Your task to perform on an android device: set default search engine in the chrome app Image 0: 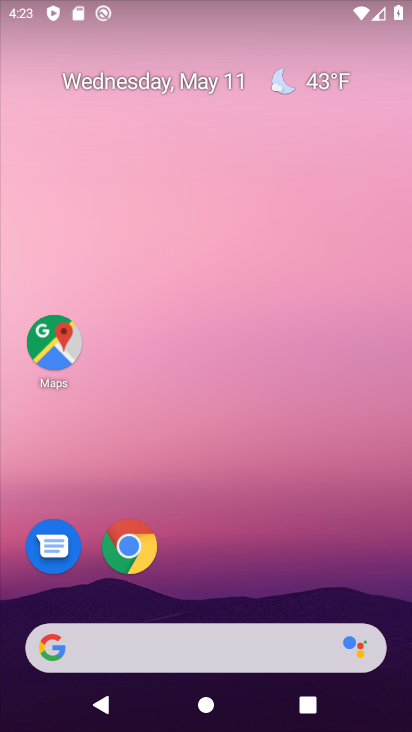
Step 0: click (137, 545)
Your task to perform on an android device: set default search engine in the chrome app Image 1: 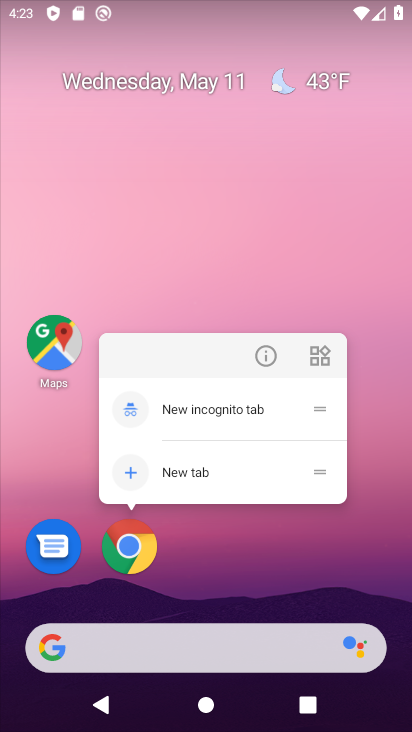
Step 1: click (123, 548)
Your task to perform on an android device: set default search engine in the chrome app Image 2: 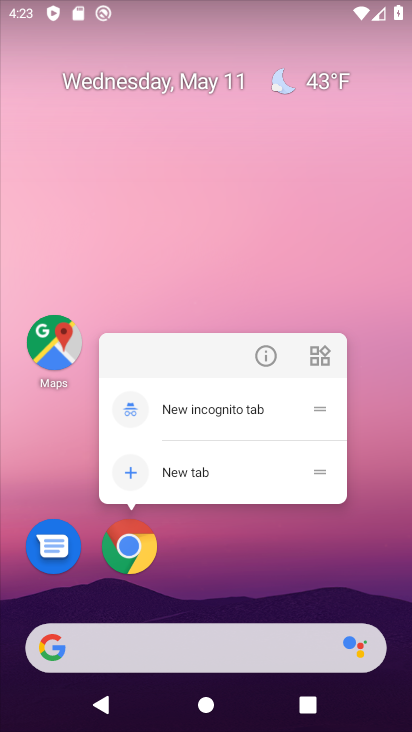
Step 2: click (123, 548)
Your task to perform on an android device: set default search engine in the chrome app Image 3: 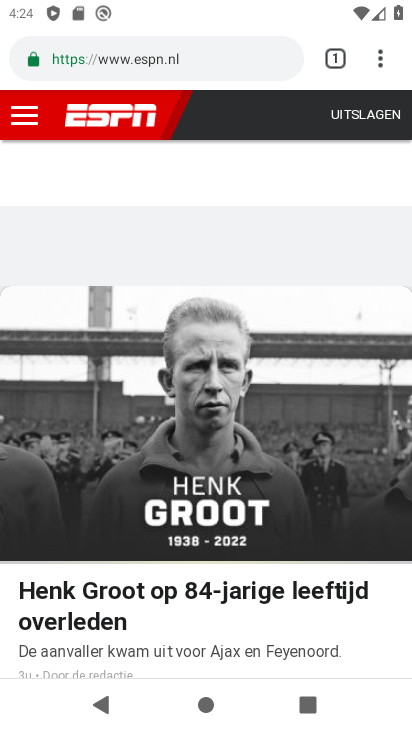
Step 3: click (370, 63)
Your task to perform on an android device: set default search engine in the chrome app Image 4: 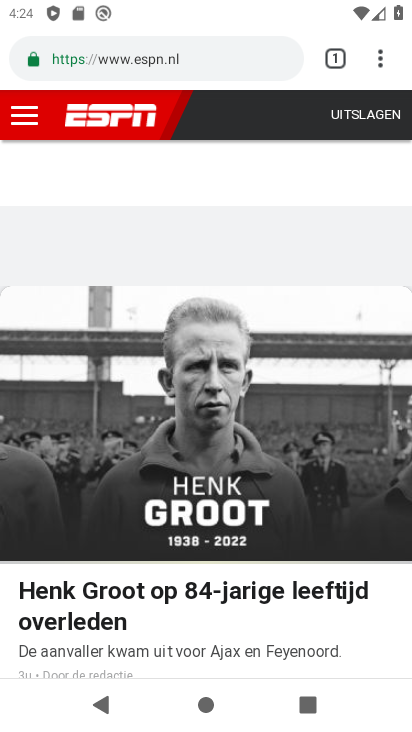
Step 4: click (381, 53)
Your task to perform on an android device: set default search engine in the chrome app Image 5: 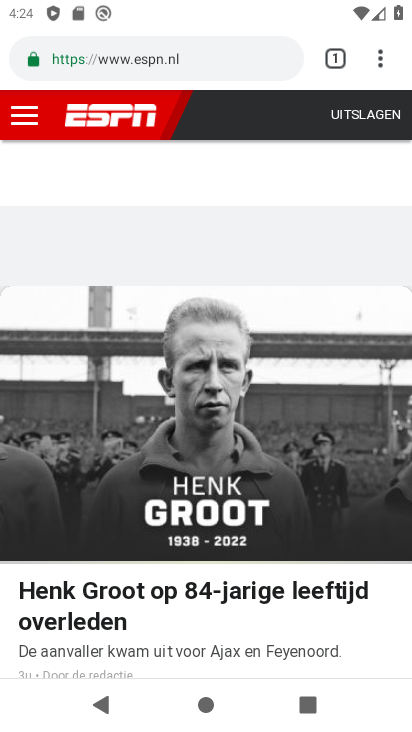
Step 5: click (373, 57)
Your task to perform on an android device: set default search engine in the chrome app Image 6: 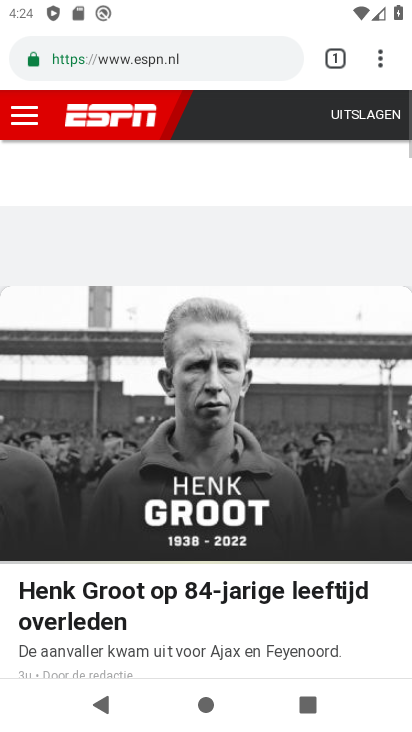
Step 6: click (373, 57)
Your task to perform on an android device: set default search engine in the chrome app Image 7: 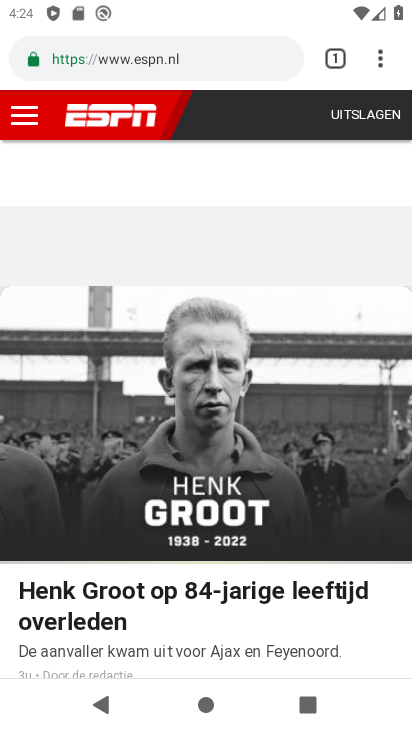
Step 7: click (383, 58)
Your task to perform on an android device: set default search engine in the chrome app Image 8: 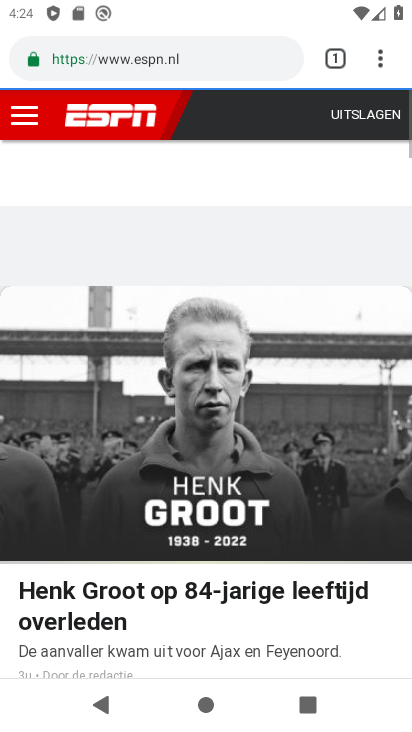
Step 8: click (383, 58)
Your task to perform on an android device: set default search engine in the chrome app Image 9: 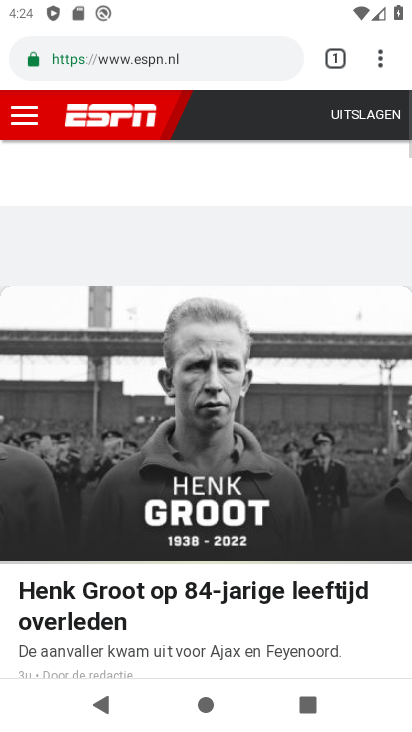
Step 9: click (379, 48)
Your task to perform on an android device: set default search engine in the chrome app Image 10: 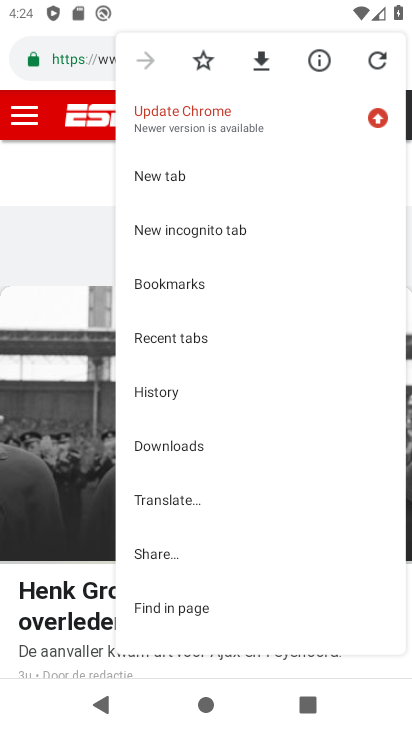
Step 10: drag from (195, 613) to (178, 321)
Your task to perform on an android device: set default search engine in the chrome app Image 11: 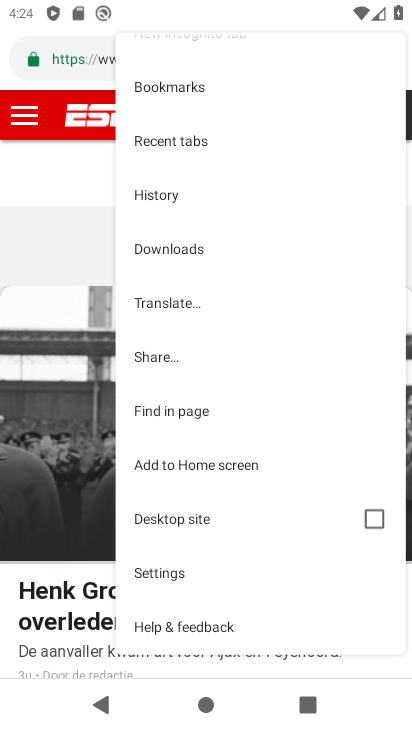
Step 11: click (156, 576)
Your task to perform on an android device: set default search engine in the chrome app Image 12: 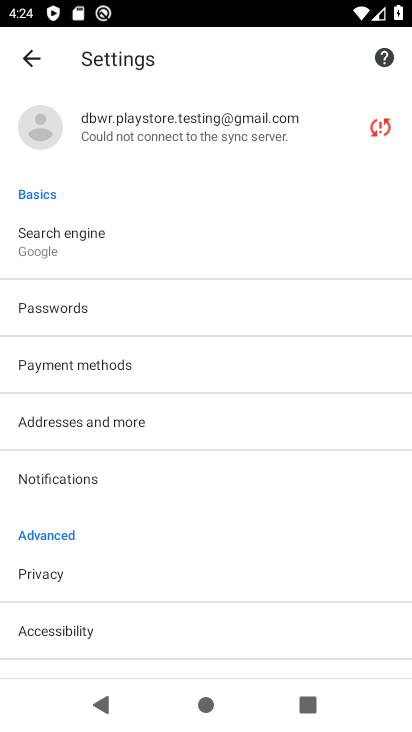
Step 12: click (52, 246)
Your task to perform on an android device: set default search engine in the chrome app Image 13: 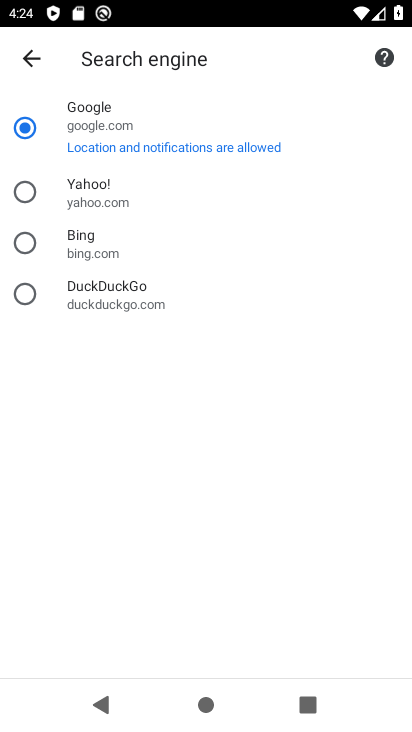
Step 13: task complete